Your task to perform on an android device: Open the map Image 0: 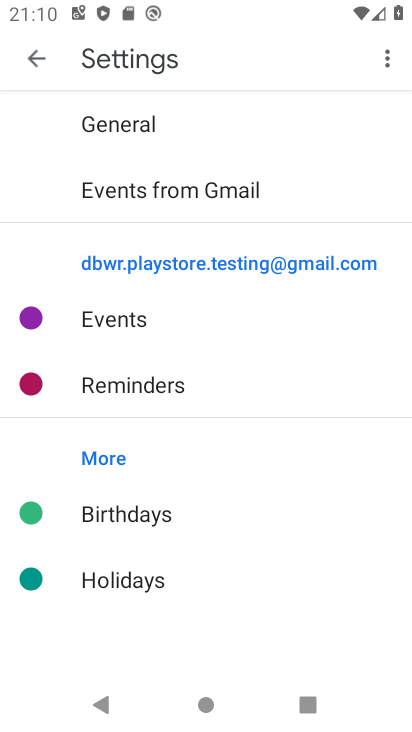
Step 0: press home button
Your task to perform on an android device: Open the map Image 1: 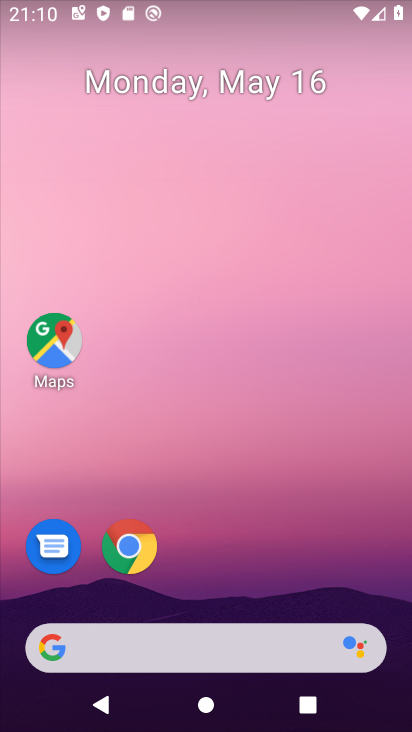
Step 1: drag from (272, 688) to (235, 244)
Your task to perform on an android device: Open the map Image 2: 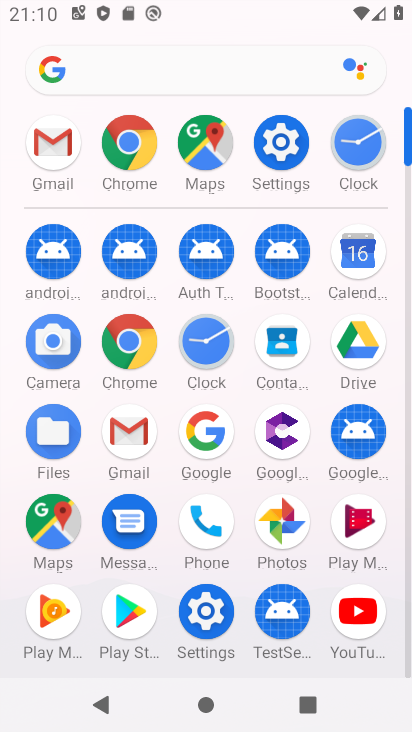
Step 2: click (183, 164)
Your task to perform on an android device: Open the map Image 3: 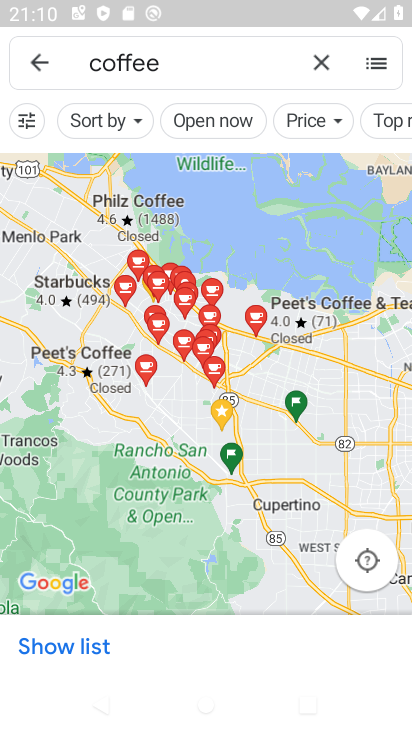
Step 3: click (33, 66)
Your task to perform on an android device: Open the map Image 4: 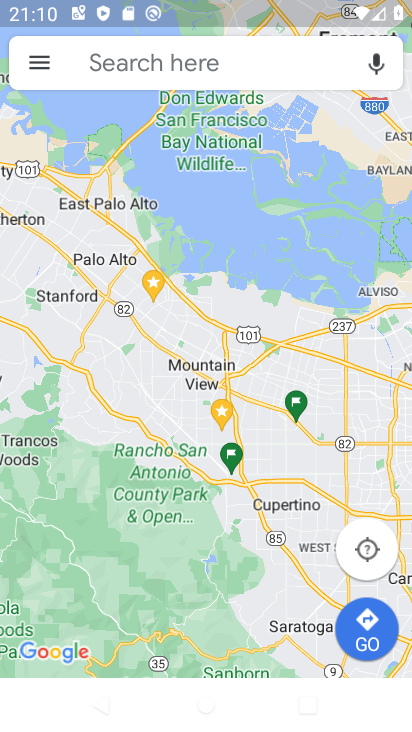
Step 4: click (366, 544)
Your task to perform on an android device: Open the map Image 5: 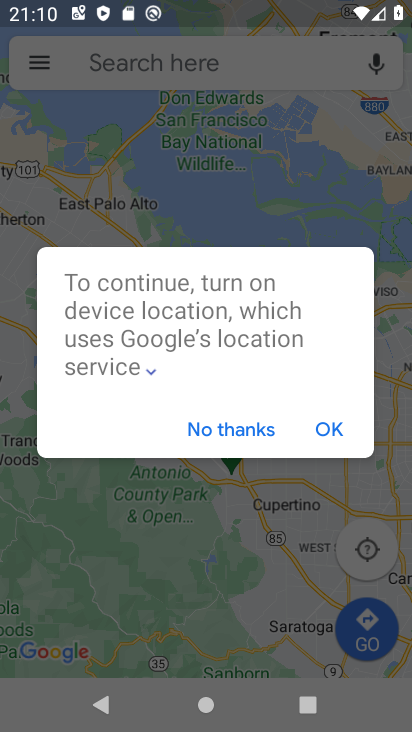
Step 5: click (217, 436)
Your task to perform on an android device: Open the map Image 6: 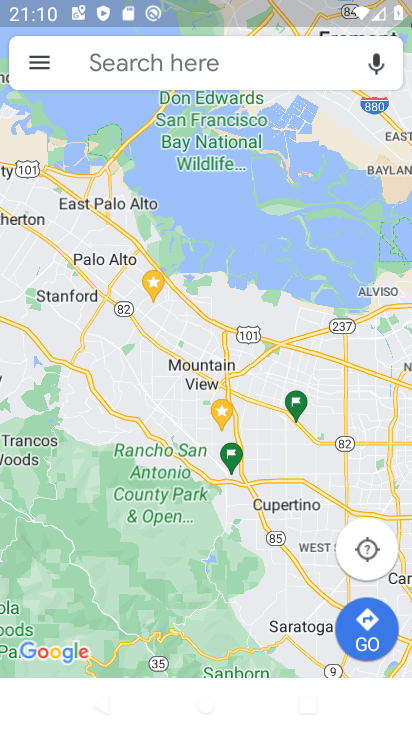
Step 6: task complete